Your task to perform on an android device: toggle pop-ups in chrome Image 0: 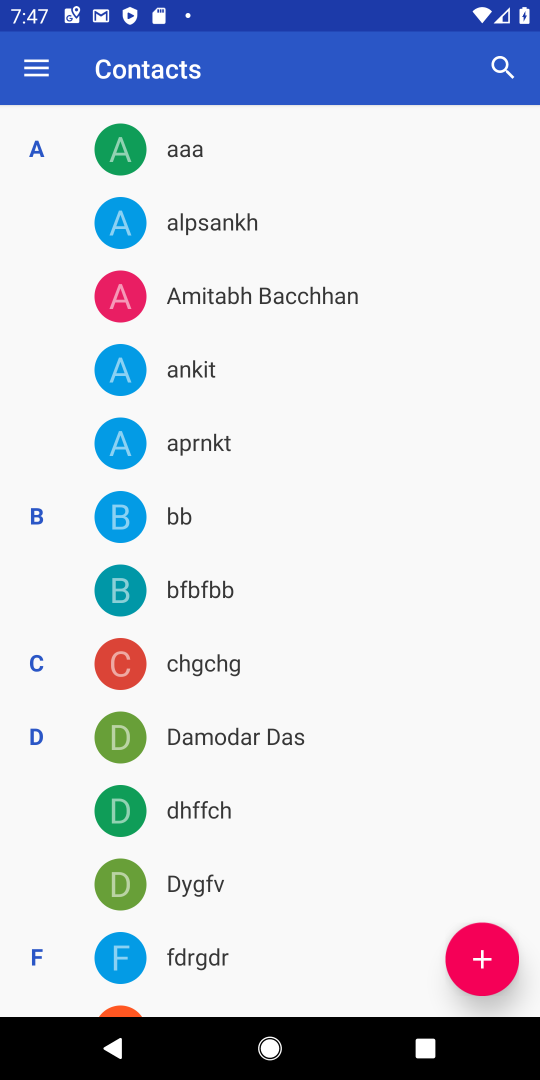
Step 0: press home button
Your task to perform on an android device: toggle pop-ups in chrome Image 1: 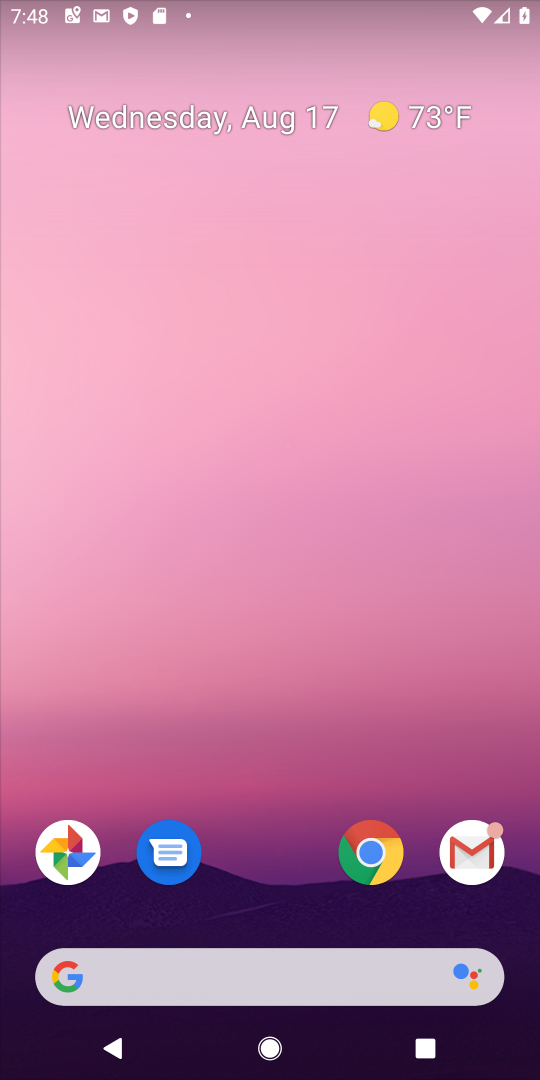
Step 1: click (370, 854)
Your task to perform on an android device: toggle pop-ups in chrome Image 2: 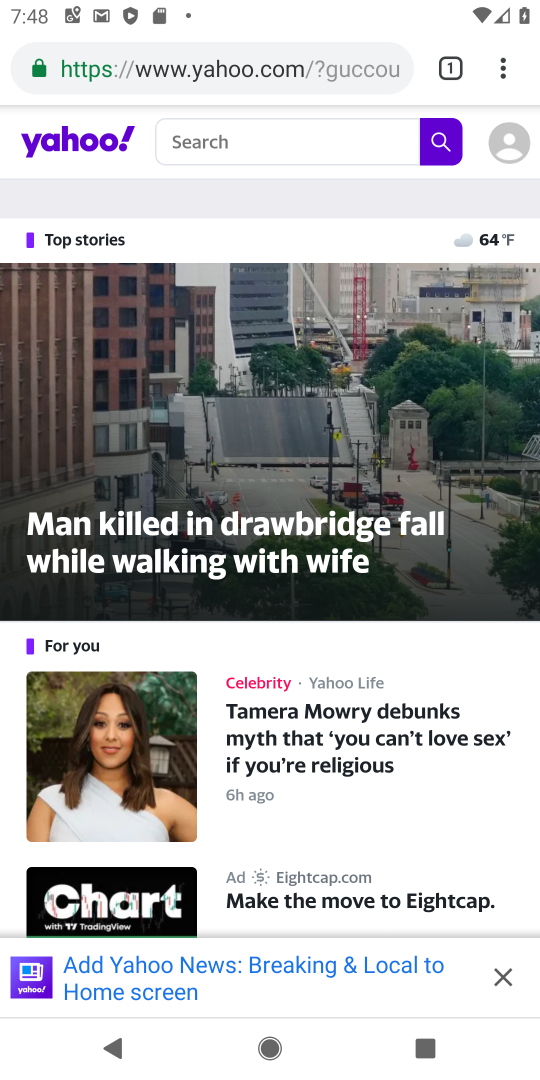
Step 2: click (496, 65)
Your task to perform on an android device: toggle pop-ups in chrome Image 3: 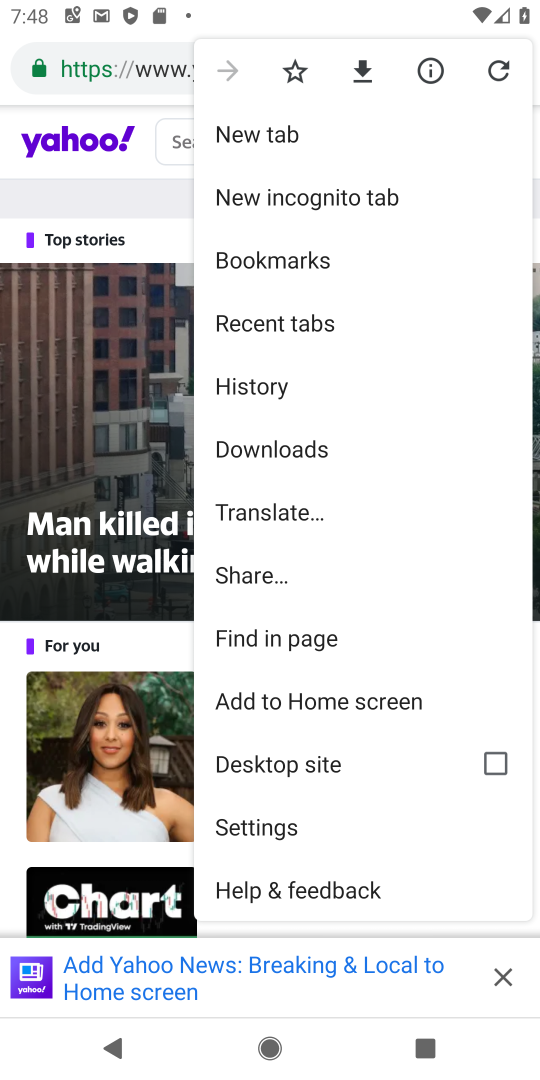
Step 3: click (268, 820)
Your task to perform on an android device: toggle pop-ups in chrome Image 4: 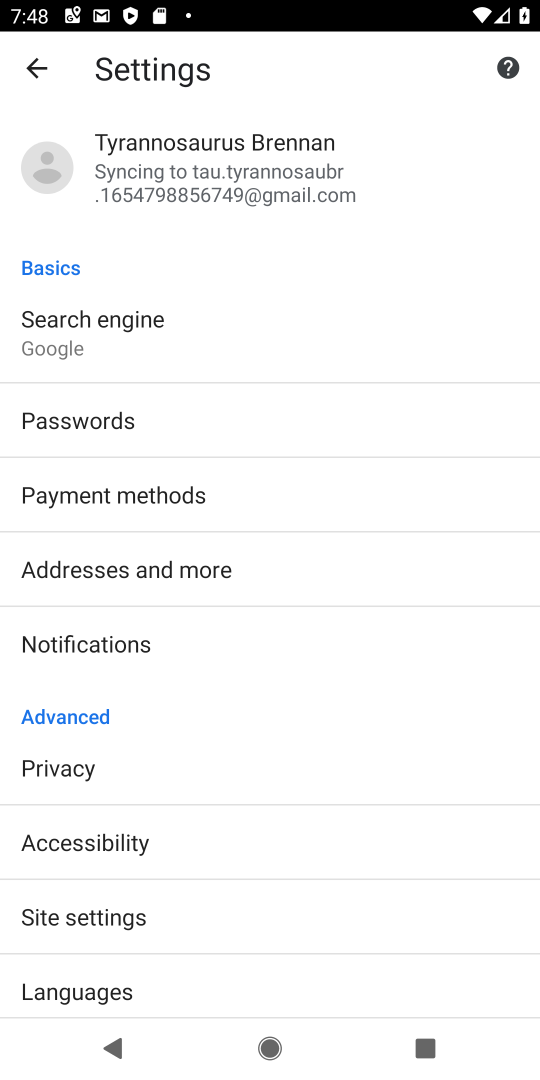
Step 4: click (115, 912)
Your task to perform on an android device: toggle pop-ups in chrome Image 5: 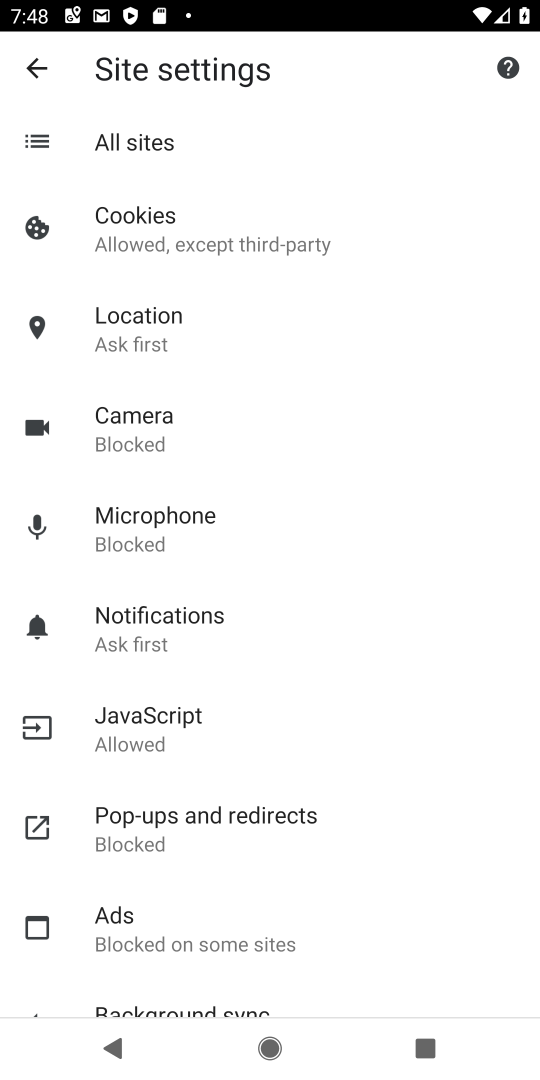
Step 5: click (181, 815)
Your task to perform on an android device: toggle pop-ups in chrome Image 6: 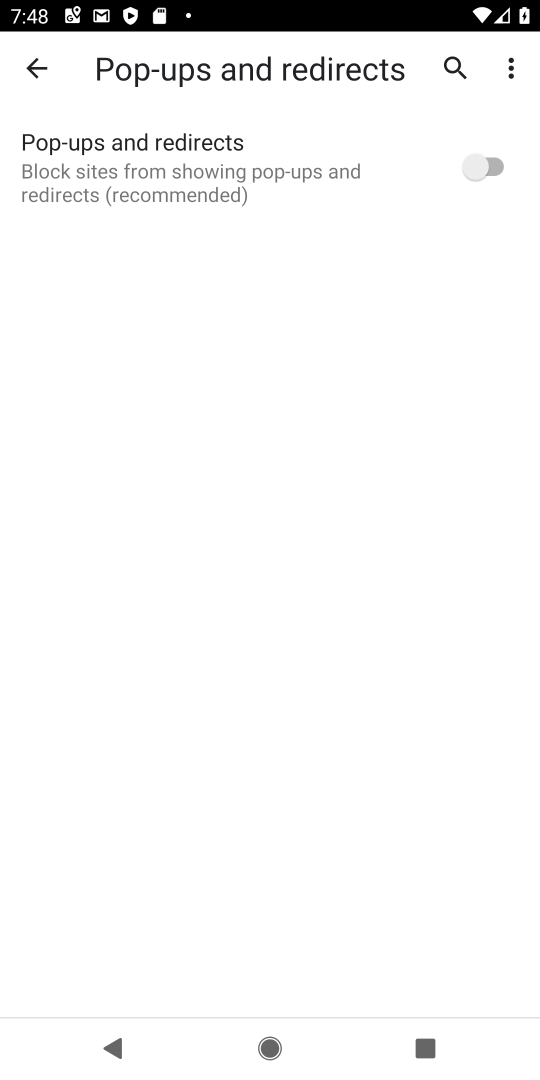
Step 6: click (476, 168)
Your task to perform on an android device: toggle pop-ups in chrome Image 7: 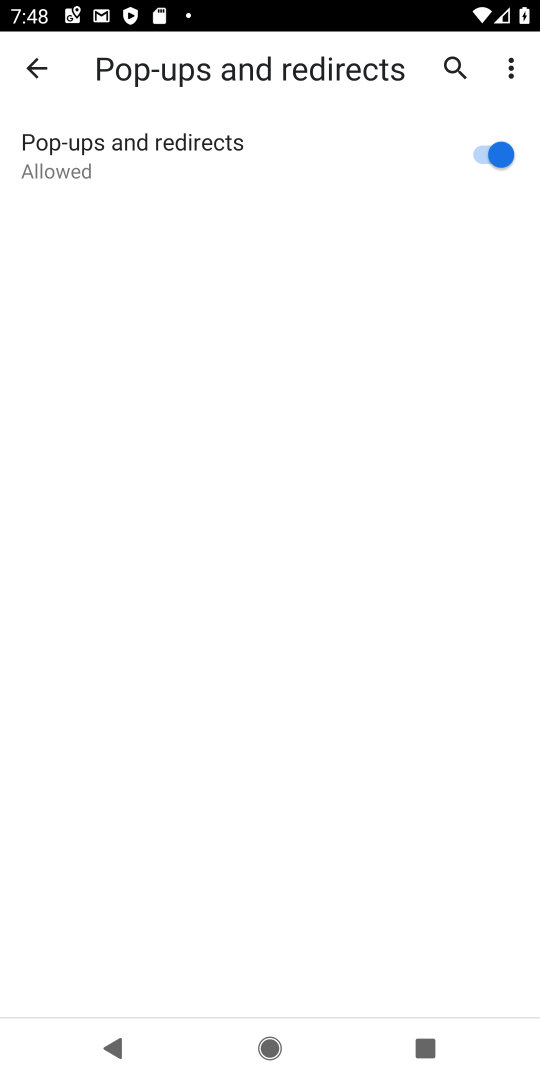
Step 7: task complete